Your task to perform on an android device: open the mobile data screen to see how much data has been used Image 0: 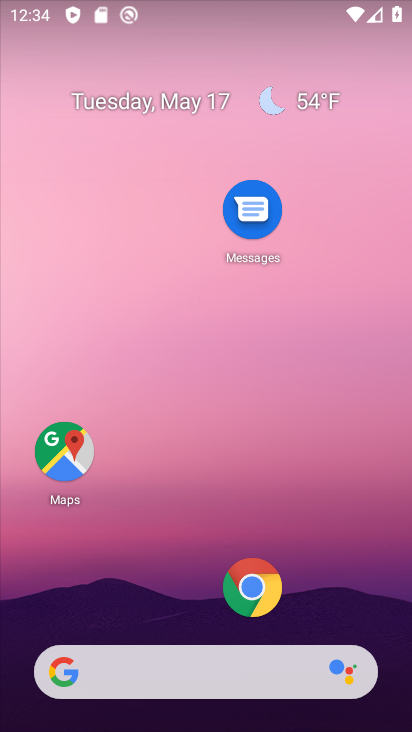
Step 0: drag from (182, 419) to (246, 1)
Your task to perform on an android device: open the mobile data screen to see how much data has been used Image 1: 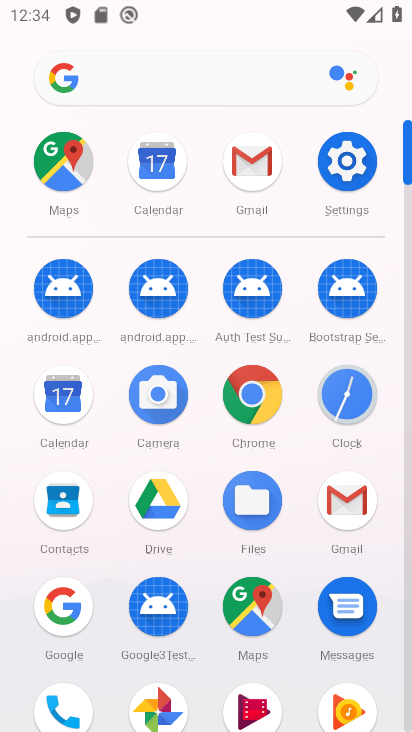
Step 1: click (350, 173)
Your task to perform on an android device: open the mobile data screen to see how much data has been used Image 2: 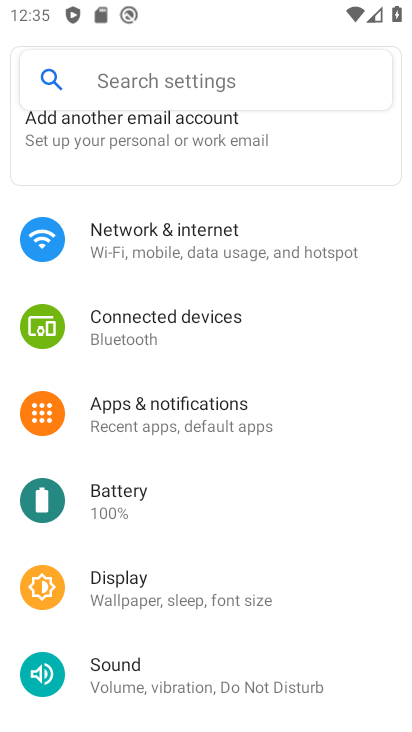
Step 2: click (169, 263)
Your task to perform on an android device: open the mobile data screen to see how much data has been used Image 3: 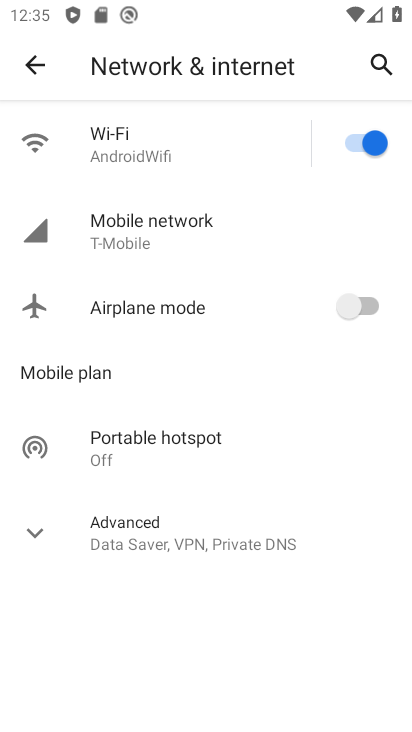
Step 3: click (143, 242)
Your task to perform on an android device: open the mobile data screen to see how much data has been used Image 4: 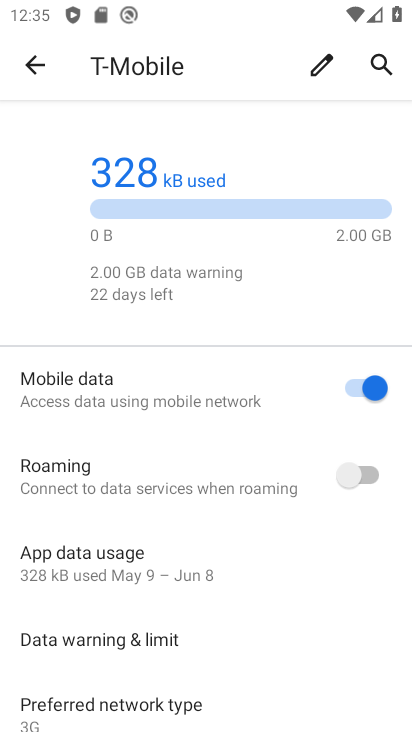
Step 4: click (138, 555)
Your task to perform on an android device: open the mobile data screen to see how much data has been used Image 5: 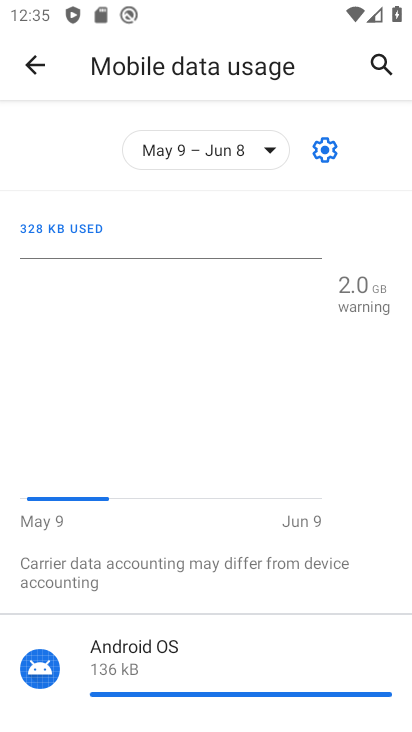
Step 5: task complete